Your task to perform on an android device: Open calendar and show me the fourth week of next month Image 0: 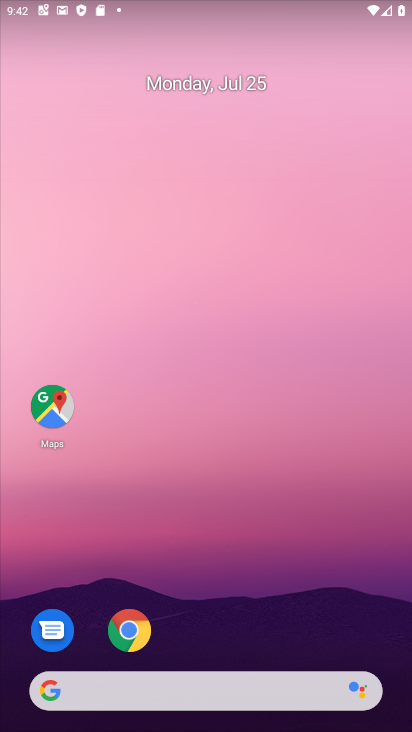
Step 0: press home button
Your task to perform on an android device: Open calendar and show me the fourth week of next month Image 1: 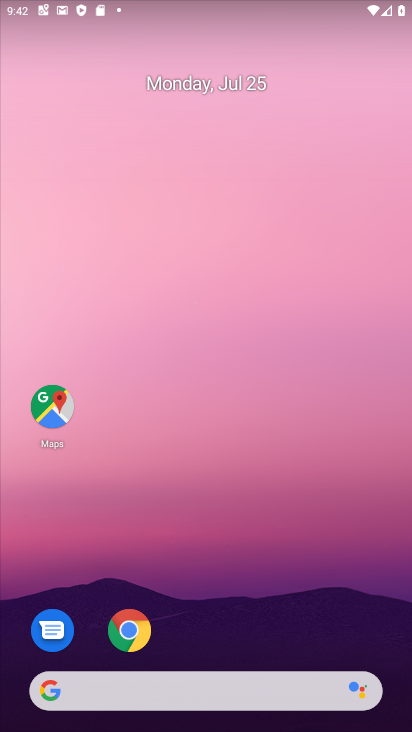
Step 1: drag from (259, 627) to (263, 152)
Your task to perform on an android device: Open calendar and show me the fourth week of next month Image 2: 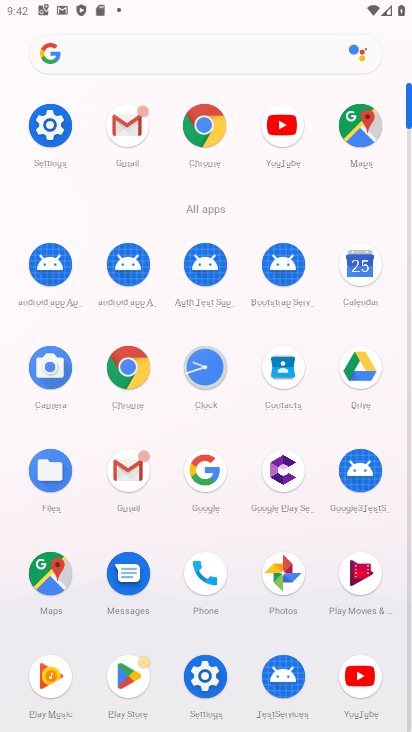
Step 2: click (362, 265)
Your task to perform on an android device: Open calendar and show me the fourth week of next month Image 3: 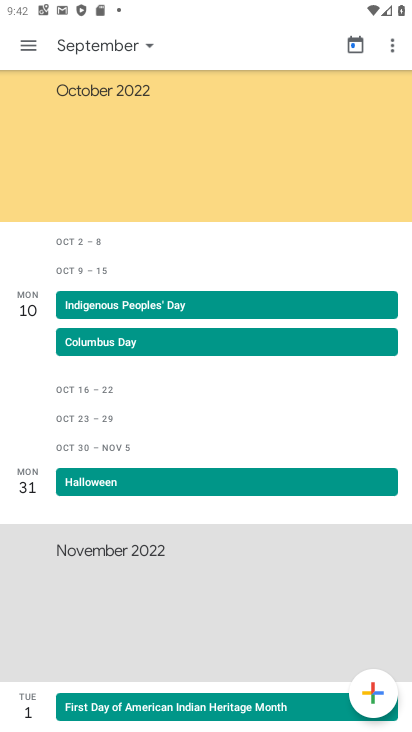
Step 3: click (29, 43)
Your task to perform on an android device: Open calendar and show me the fourth week of next month Image 4: 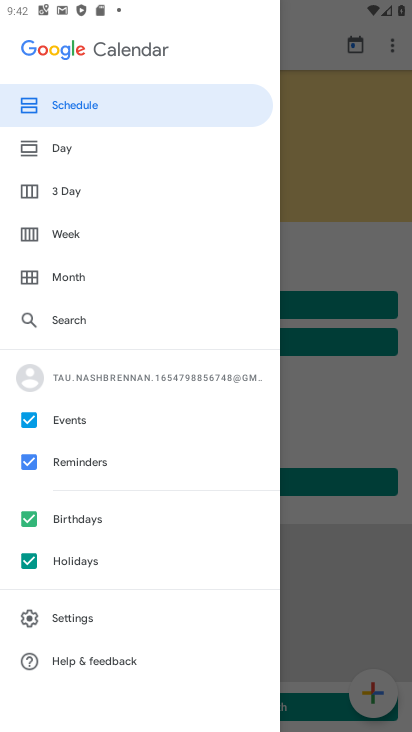
Step 4: click (82, 272)
Your task to perform on an android device: Open calendar and show me the fourth week of next month Image 5: 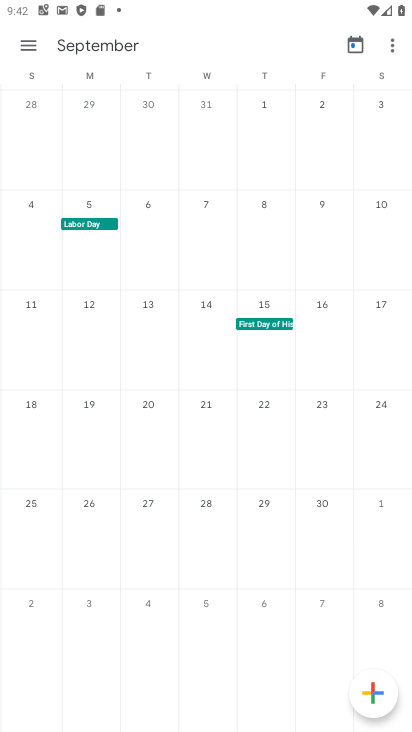
Step 5: drag from (40, 261) to (408, 228)
Your task to perform on an android device: Open calendar and show me the fourth week of next month Image 6: 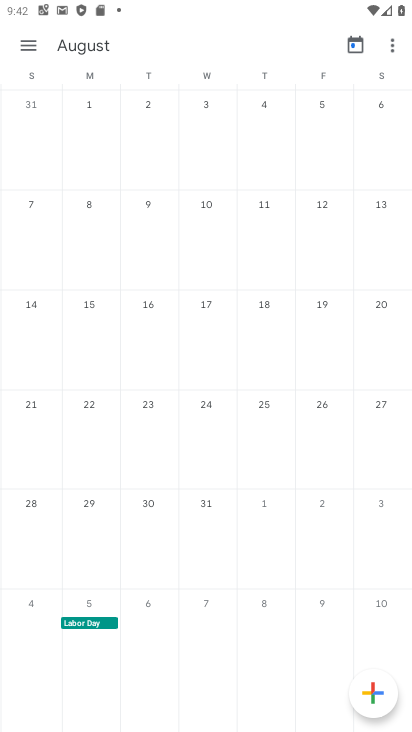
Step 6: click (31, 43)
Your task to perform on an android device: Open calendar and show me the fourth week of next month Image 7: 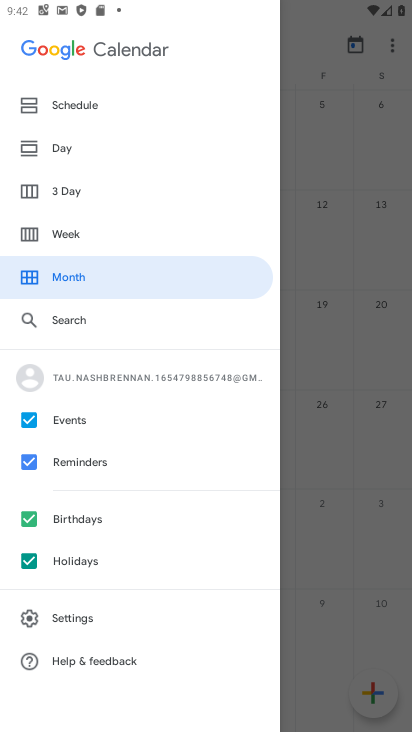
Step 7: click (72, 225)
Your task to perform on an android device: Open calendar and show me the fourth week of next month Image 8: 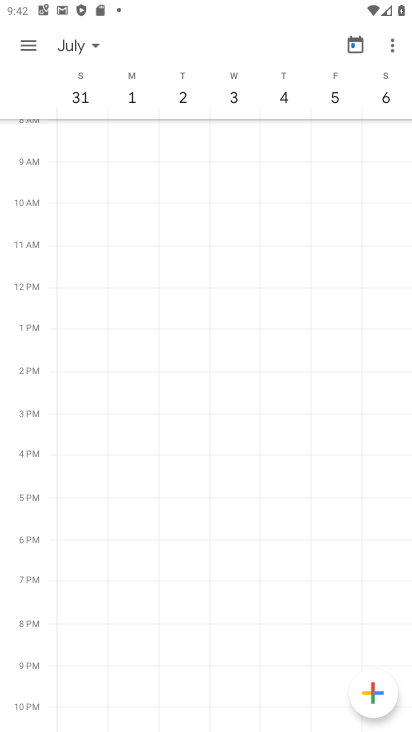
Step 8: task complete